Your task to perform on an android device: turn notification dots on Image 0: 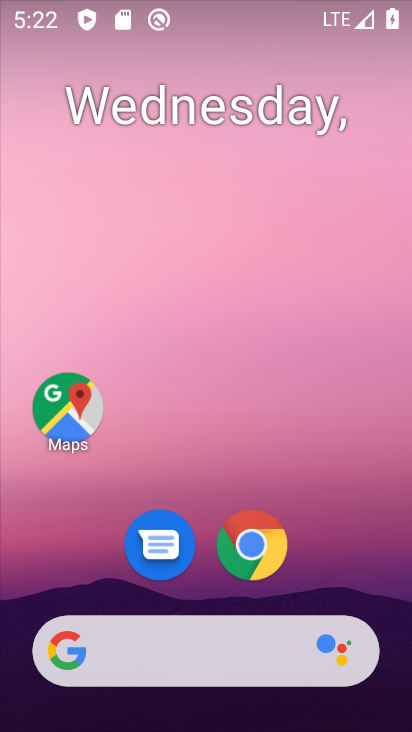
Step 0: drag from (209, 553) to (276, 66)
Your task to perform on an android device: turn notification dots on Image 1: 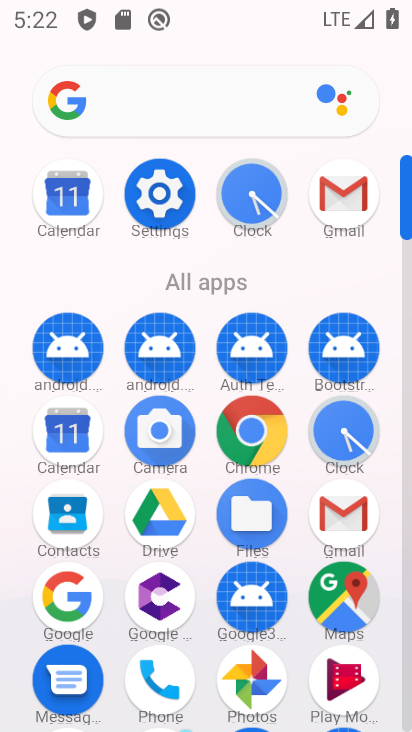
Step 1: click (149, 187)
Your task to perform on an android device: turn notification dots on Image 2: 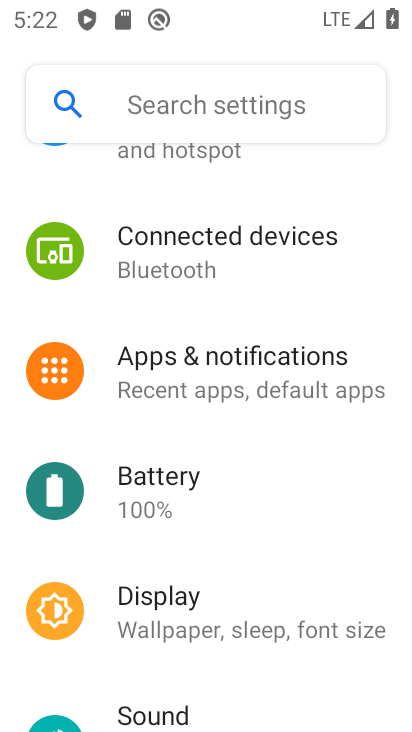
Step 2: click (208, 377)
Your task to perform on an android device: turn notification dots on Image 3: 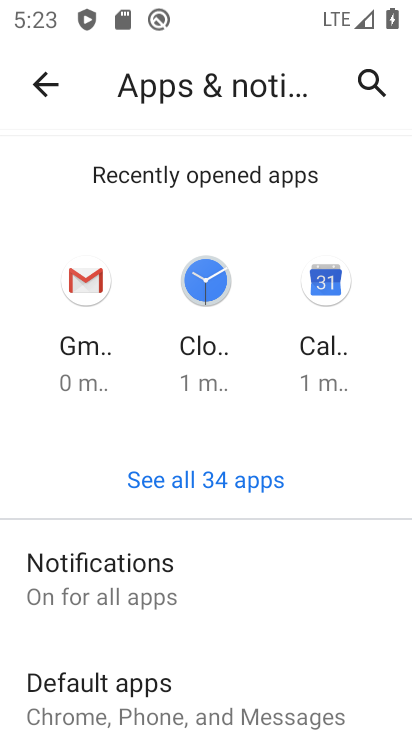
Step 3: click (144, 576)
Your task to perform on an android device: turn notification dots on Image 4: 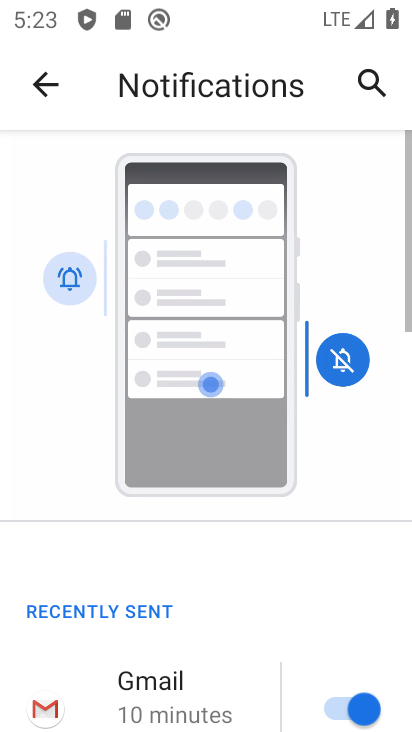
Step 4: drag from (210, 678) to (265, 131)
Your task to perform on an android device: turn notification dots on Image 5: 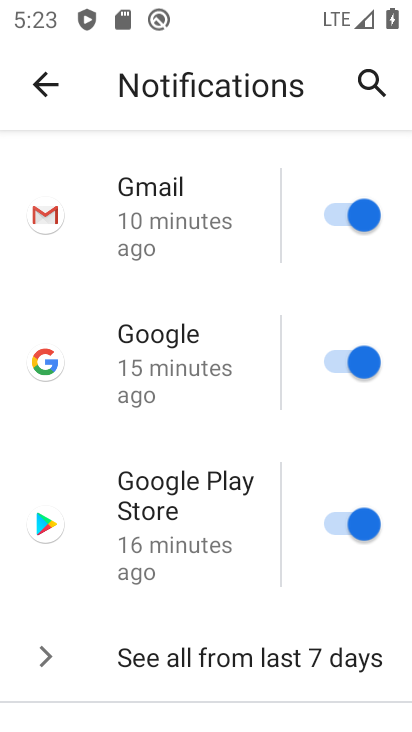
Step 5: drag from (174, 673) to (223, 226)
Your task to perform on an android device: turn notification dots on Image 6: 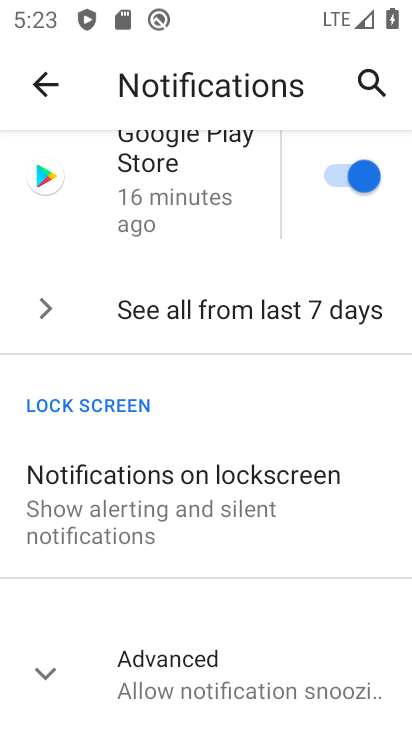
Step 6: click (193, 677)
Your task to perform on an android device: turn notification dots on Image 7: 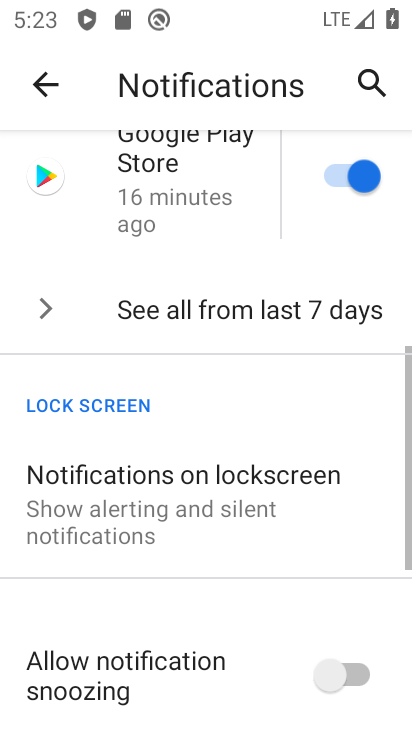
Step 7: task complete